Your task to perform on an android device: open wifi settings Image 0: 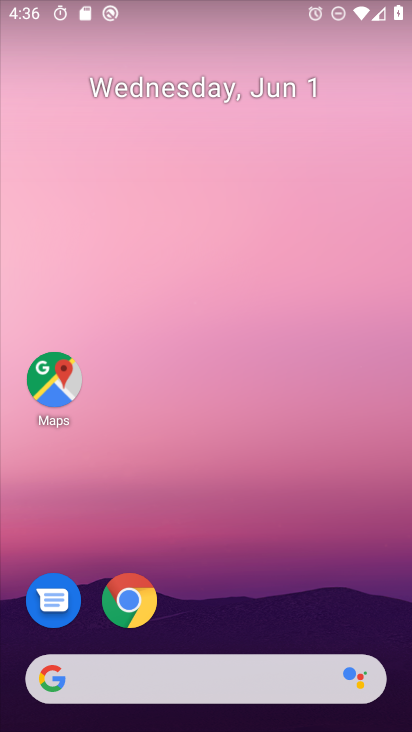
Step 0: drag from (244, 573) to (6, 603)
Your task to perform on an android device: open wifi settings Image 1: 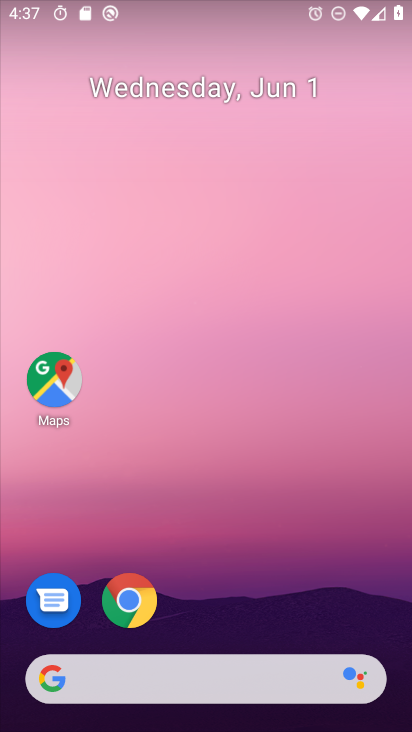
Step 1: drag from (205, 608) to (266, 94)
Your task to perform on an android device: open wifi settings Image 2: 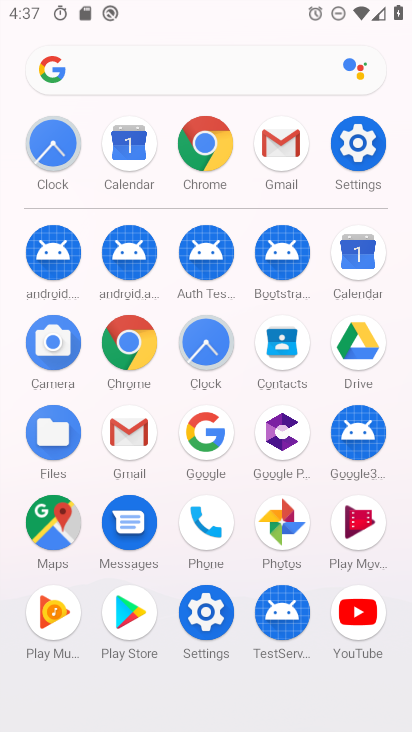
Step 2: click (355, 130)
Your task to perform on an android device: open wifi settings Image 3: 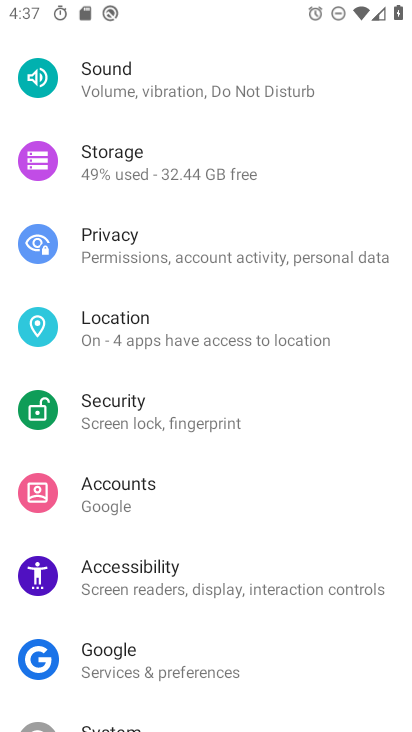
Step 3: drag from (254, 146) to (106, 432)
Your task to perform on an android device: open wifi settings Image 4: 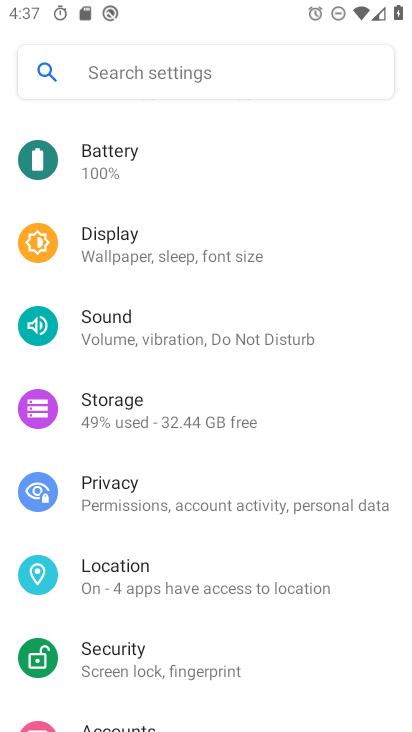
Step 4: drag from (145, 246) to (13, 493)
Your task to perform on an android device: open wifi settings Image 5: 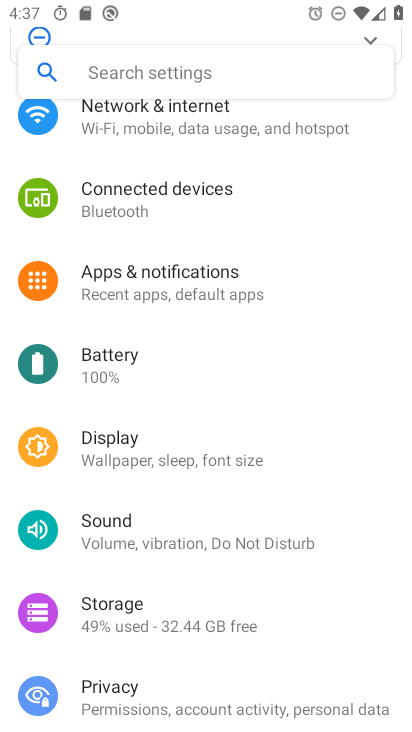
Step 5: click (224, 118)
Your task to perform on an android device: open wifi settings Image 6: 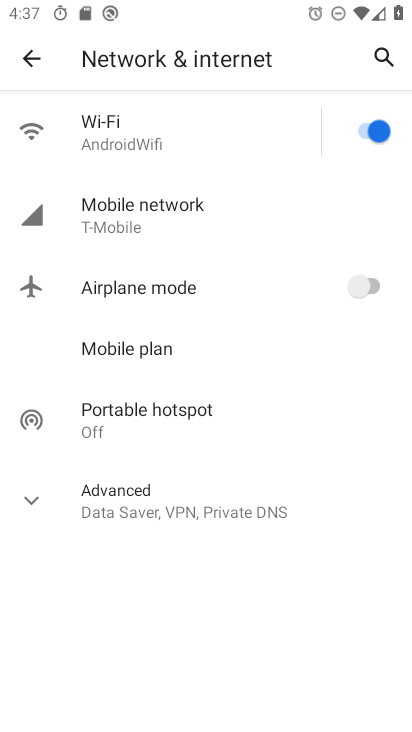
Step 6: click (124, 140)
Your task to perform on an android device: open wifi settings Image 7: 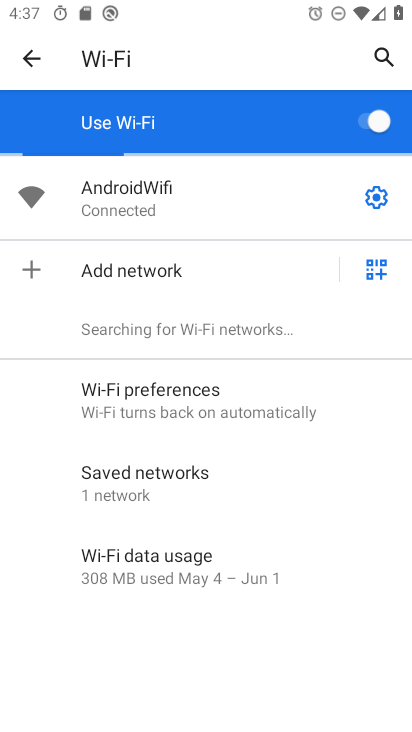
Step 7: task complete